Your task to perform on an android device: change the clock display to digital Image 0: 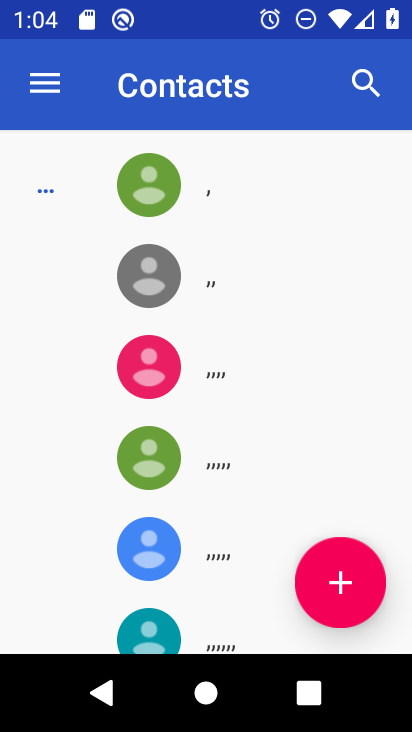
Step 0: press home button
Your task to perform on an android device: change the clock display to digital Image 1: 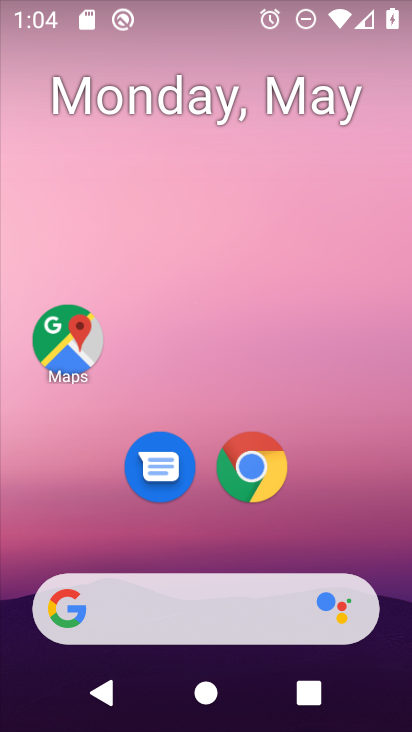
Step 1: drag from (367, 557) to (393, 44)
Your task to perform on an android device: change the clock display to digital Image 2: 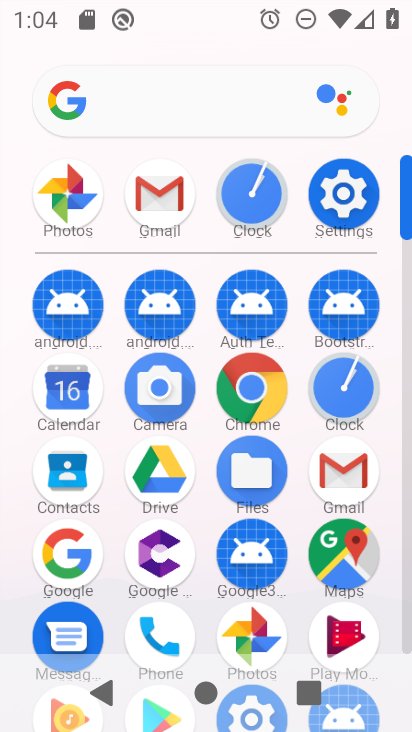
Step 2: click (253, 203)
Your task to perform on an android device: change the clock display to digital Image 3: 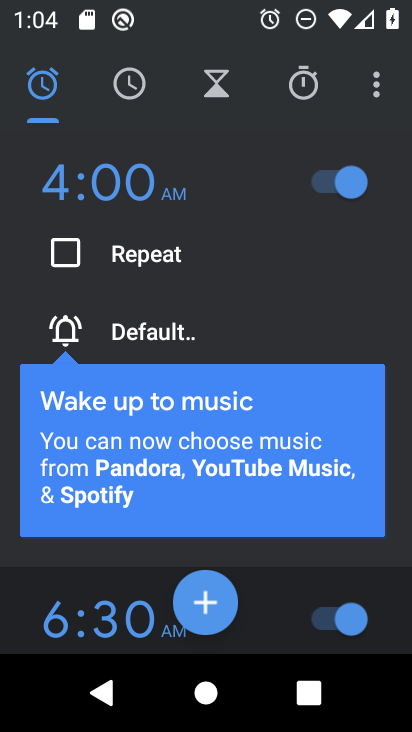
Step 3: click (379, 87)
Your task to perform on an android device: change the clock display to digital Image 4: 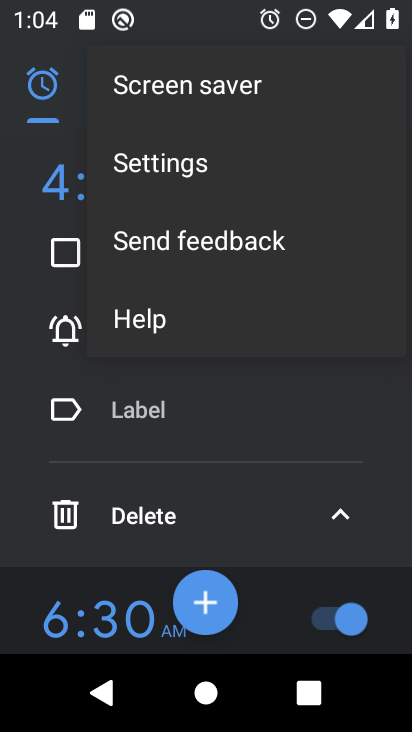
Step 4: click (151, 166)
Your task to perform on an android device: change the clock display to digital Image 5: 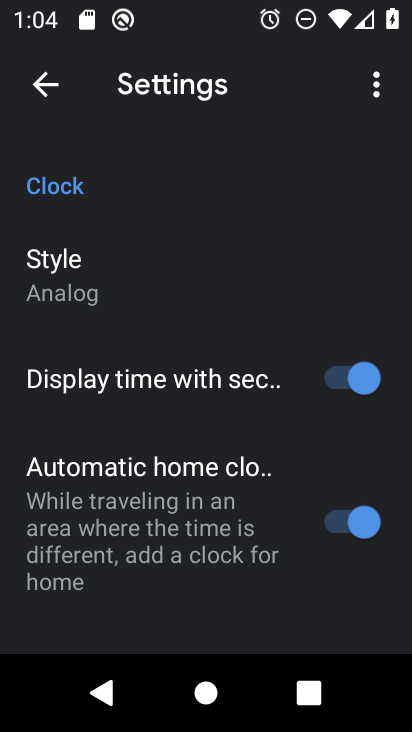
Step 5: click (64, 291)
Your task to perform on an android device: change the clock display to digital Image 6: 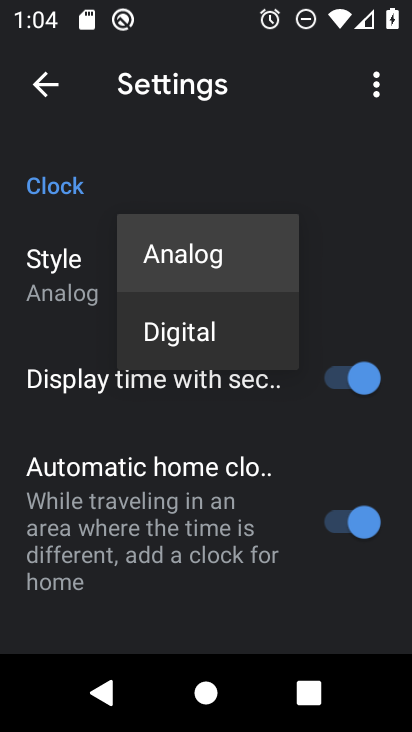
Step 6: click (143, 336)
Your task to perform on an android device: change the clock display to digital Image 7: 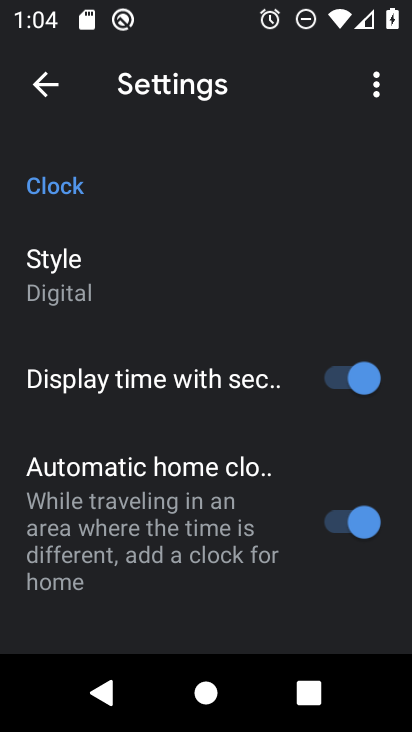
Step 7: task complete